Your task to perform on an android device: turn on priority inbox in the gmail app Image 0: 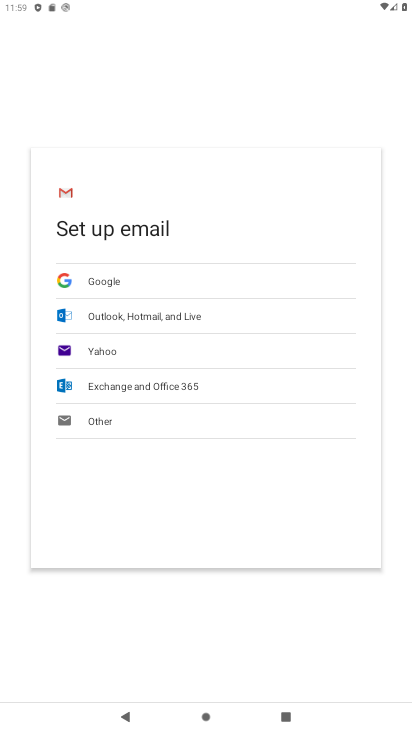
Step 0: press home button
Your task to perform on an android device: turn on priority inbox in the gmail app Image 1: 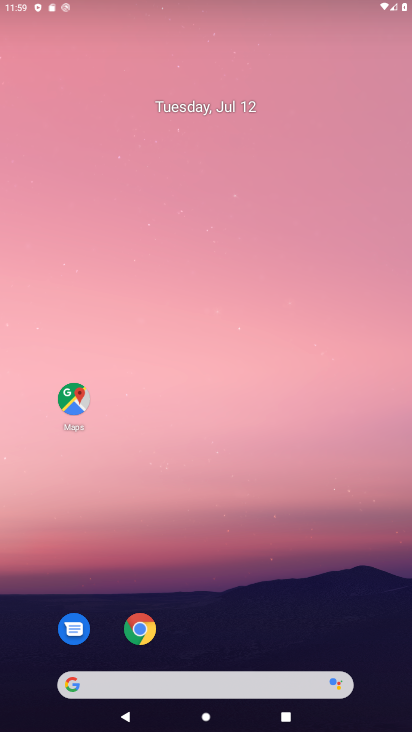
Step 1: drag from (208, 632) to (215, 189)
Your task to perform on an android device: turn on priority inbox in the gmail app Image 2: 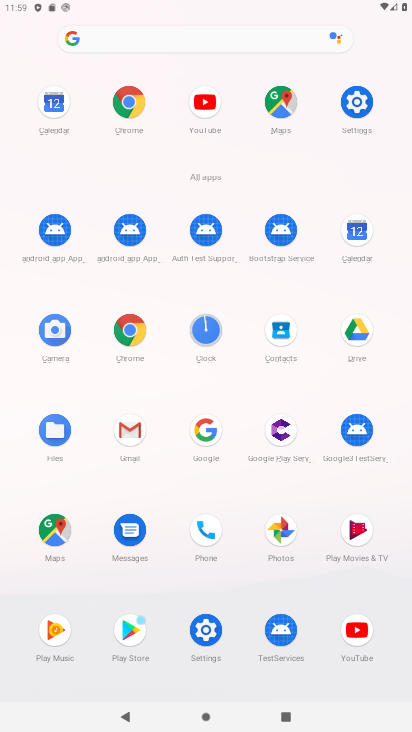
Step 2: click (126, 450)
Your task to perform on an android device: turn on priority inbox in the gmail app Image 3: 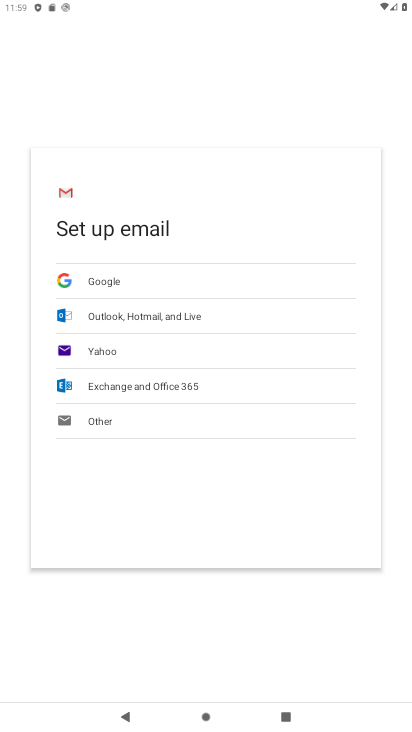
Step 3: click (331, 624)
Your task to perform on an android device: turn on priority inbox in the gmail app Image 4: 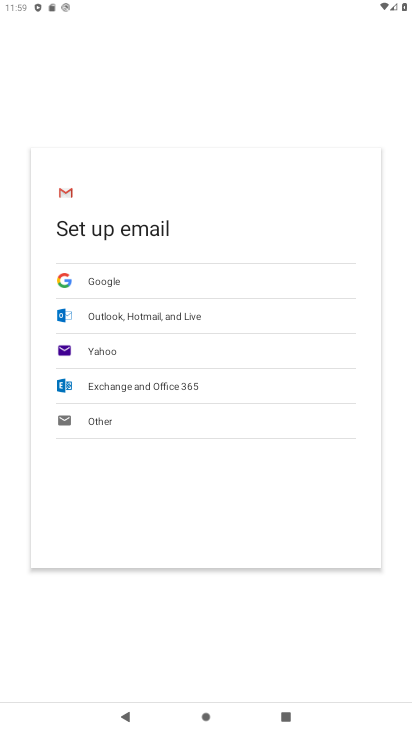
Step 4: click (337, 544)
Your task to perform on an android device: turn on priority inbox in the gmail app Image 5: 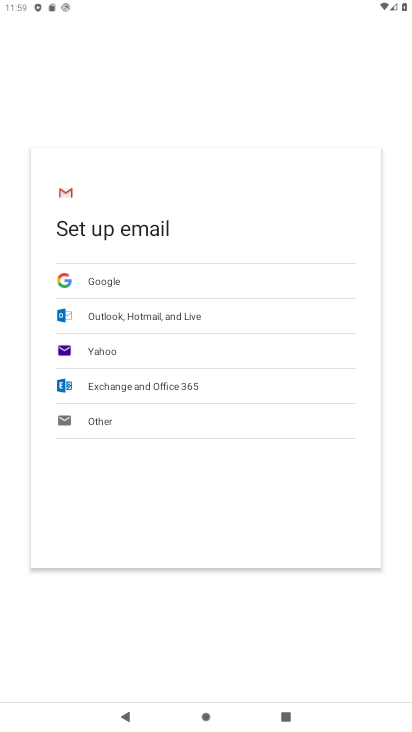
Step 5: click (349, 541)
Your task to perform on an android device: turn on priority inbox in the gmail app Image 6: 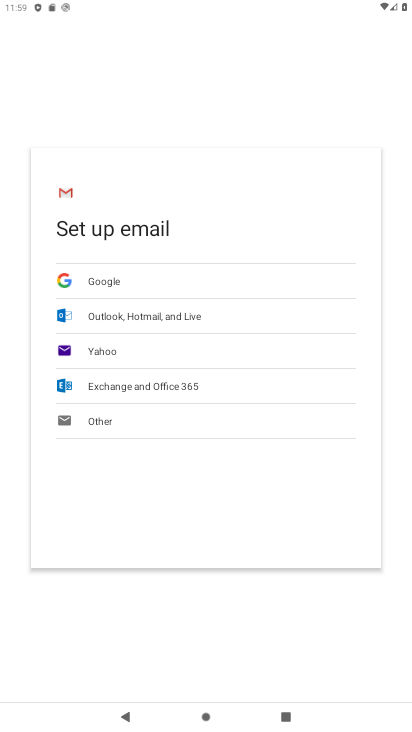
Step 6: click (188, 550)
Your task to perform on an android device: turn on priority inbox in the gmail app Image 7: 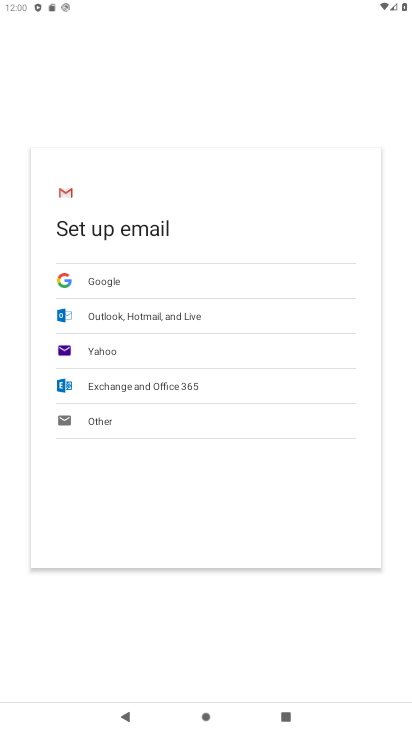
Step 7: click (31, 517)
Your task to perform on an android device: turn on priority inbox in the gmail app Image 8: 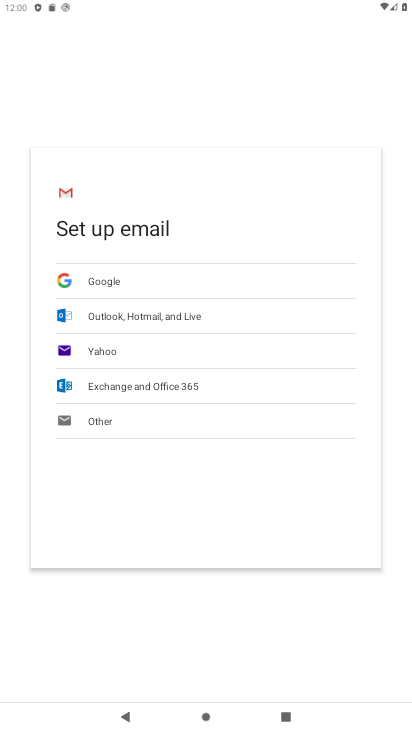
Step 8: click (168, 287)
Your task to perform on an android device: turn on priority inbox in the gmail app Image 9: 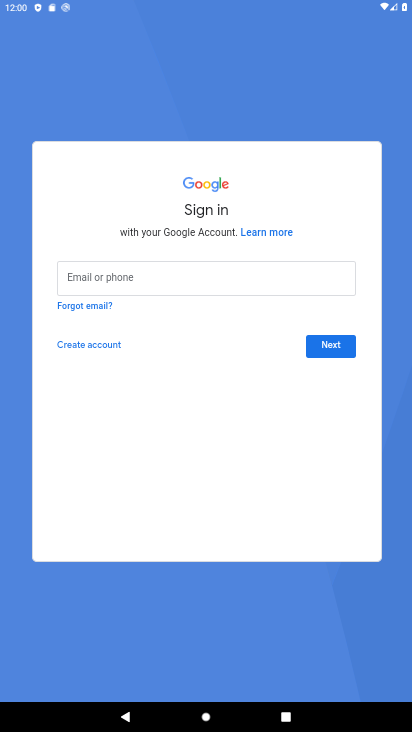
Step 9: task complete